Your task to perform on an android device: What's the weather? Image 0: 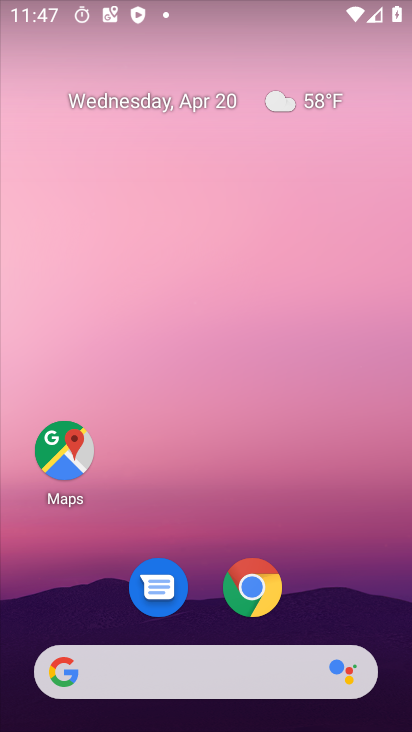
Step 0: click (309, 100)
Your task to perform on an android device: What's the weather? Image 1: 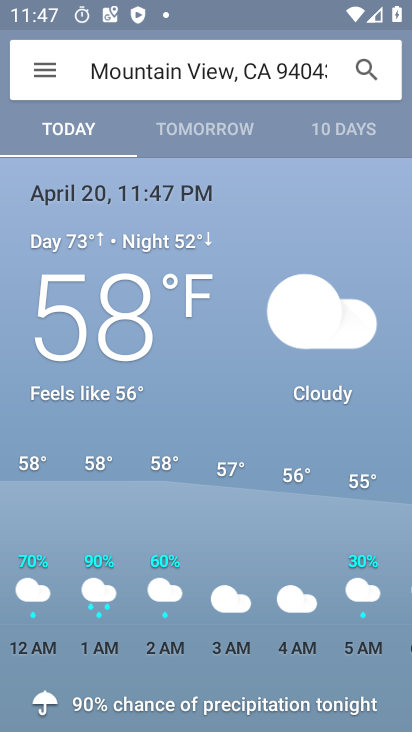
Step 1: task complete